Your task to perform on an android device: move an email to a new category in the gmail app Image 0: 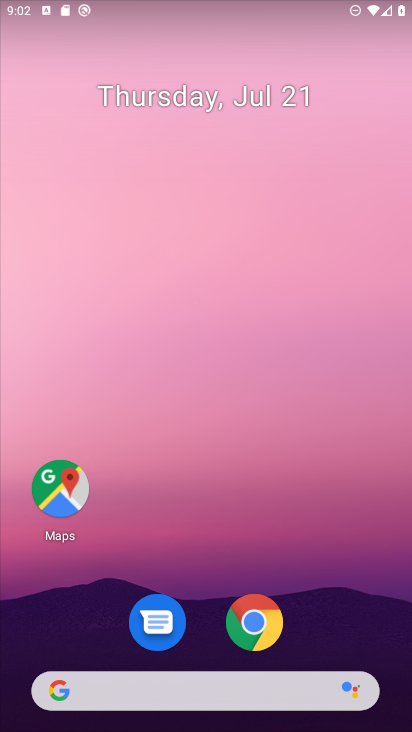
Step 0: drag from (65, 628) to (148, 153)
Your task to perform on an android device: move an email to a new category in the gmail app Image 1: 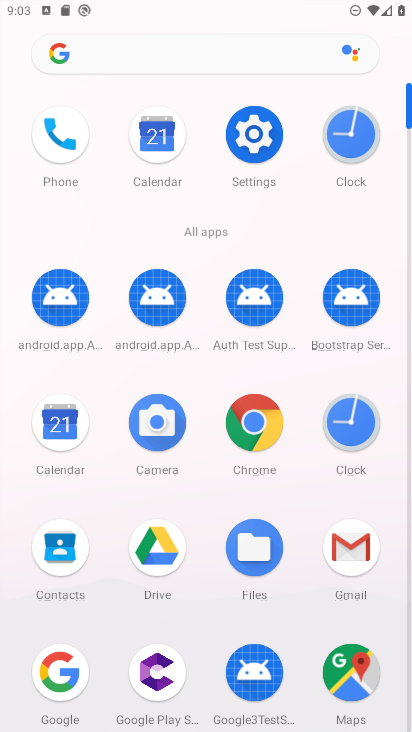
Step 1: click (362, 552)
Your task to perform on an android device: move an email to a new category in the gmail app Image 2: 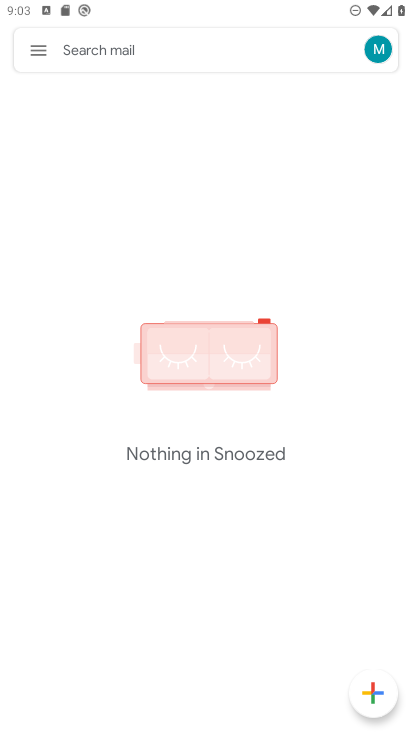
Step 2: click (39, 54)
Your task to perform on an android device: move an email to a new category in the gmail app Image 3: 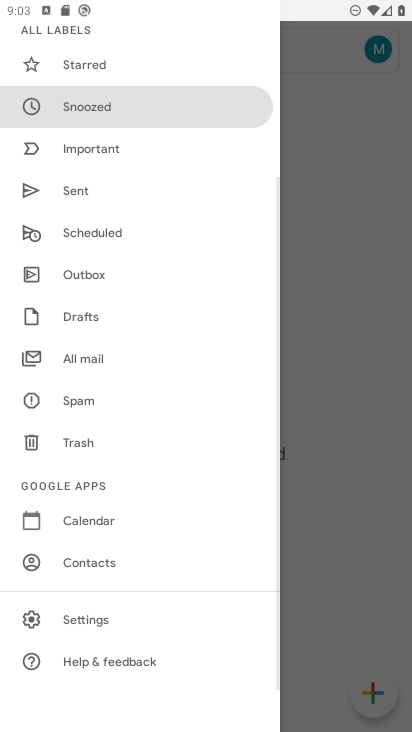
Step 3: drag from (155, 210) to (229, 673)
Your task to perform on an android device: move an email to a new category in the gmail app Image 4: 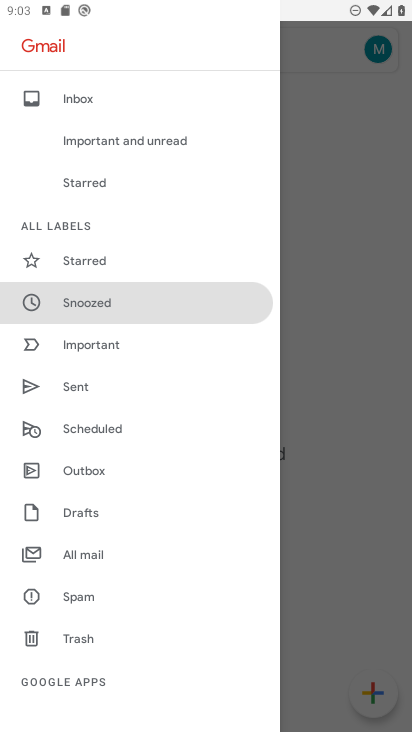
Step 4: click (101, 94)
Your task to perform on an android device: move an email to a new category in the gmail app Image 5: 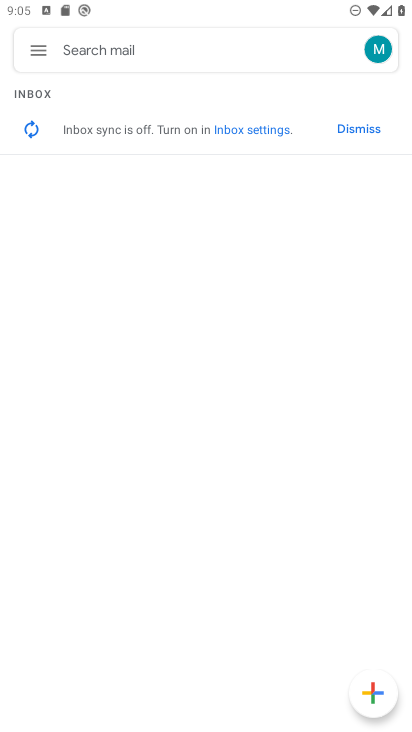
Step 5: press home button
Your task to perform on an android device: move an email to a new category in the gmail app Image 6: 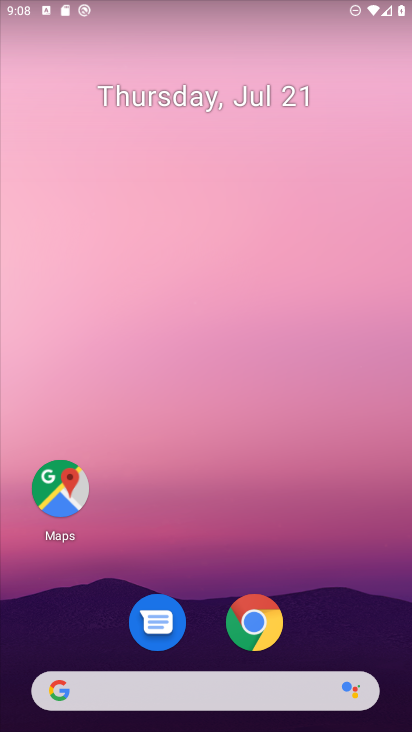
Step 6: drag from (220, 606) to (98, 61)
Your task to perform on an android device: move an email to a new category in the gmail app Image 7: 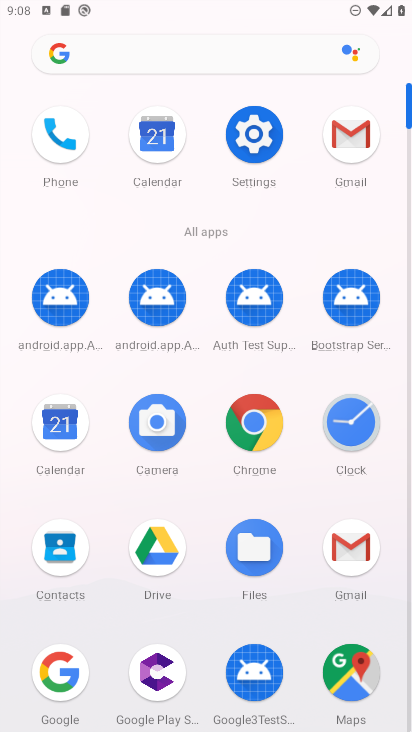
Step 7: click (355, 554)
Your task to perform on an android device: move an email to a new category in the gmail app Image 8: 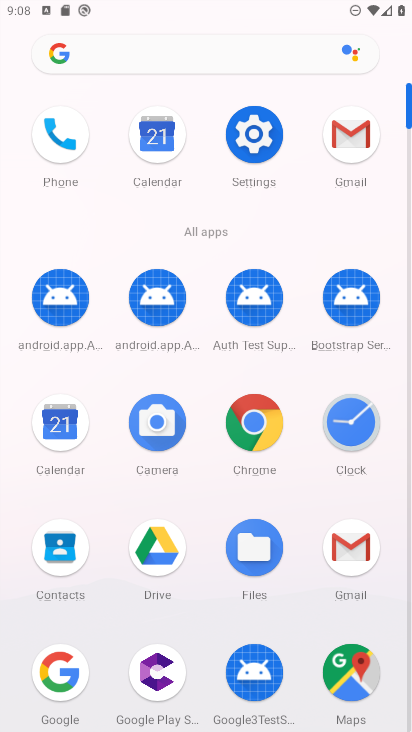
Step 8: click (355, 554)
Your task to perform on an android device: move an email to a new category in the gmail app Image 9: 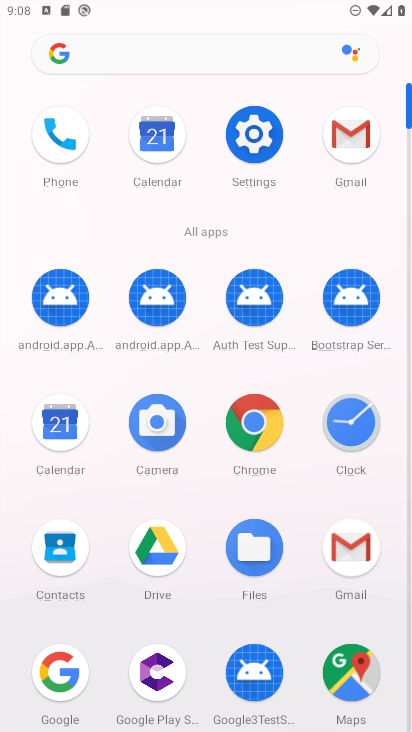
Step 9: click (355, 554)
Your task to perform on an android device: move an email to a new category in the gmail app Image 10: 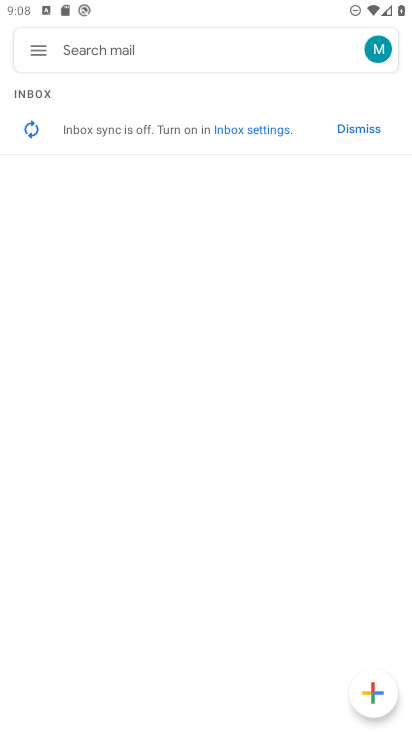
Step 10: click (40, 49)
Your task to perform on an android device: move an email to a new category in the gmail app Image 11: 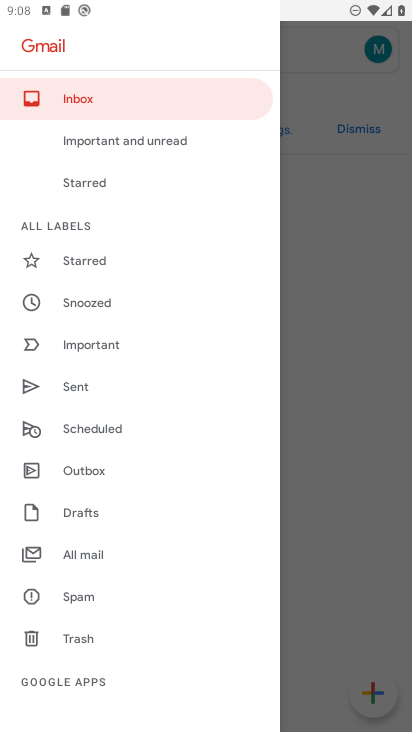
Step 11: task complete